Your task to perform on an android device: Go to display settings Image 0: 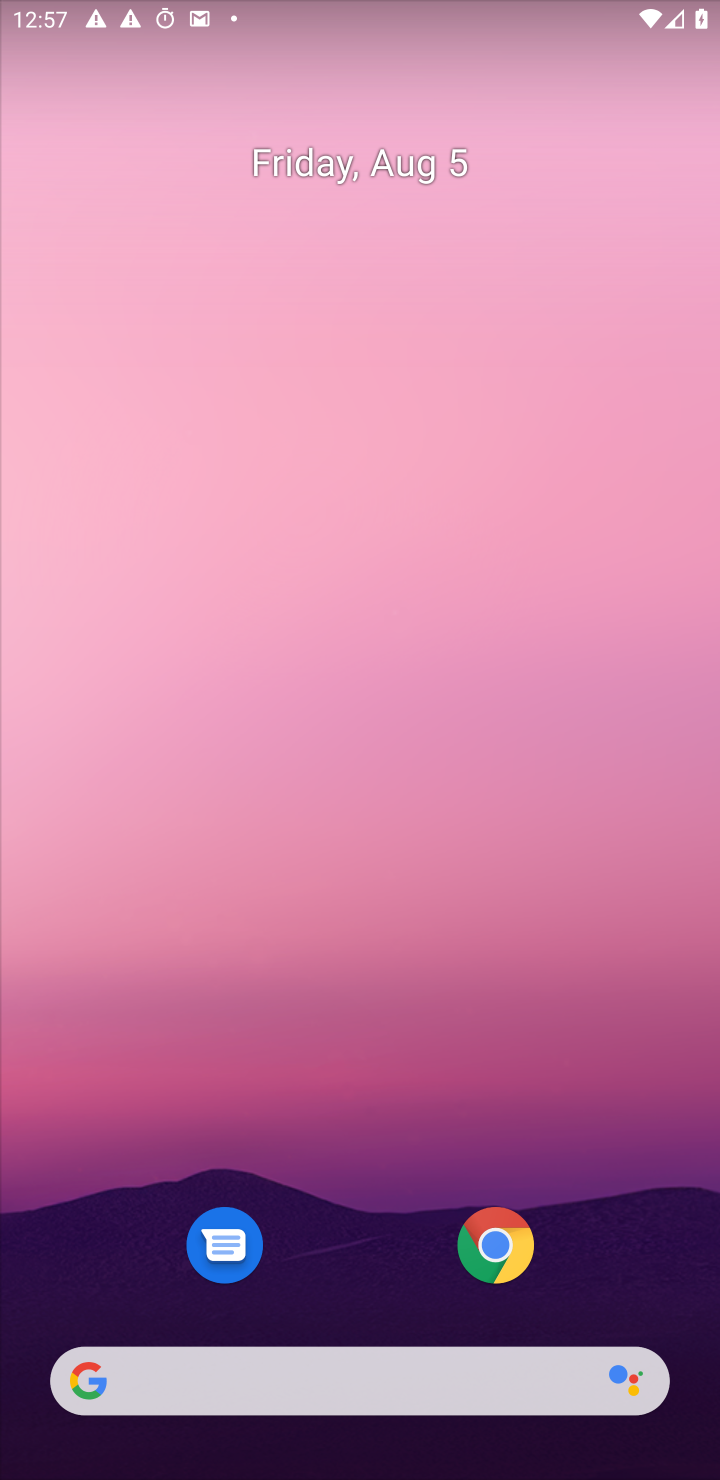
Step 0: drag from (454, 451) to (465, 50)
Your task to perform on an android device: Go to display settings Image 1: 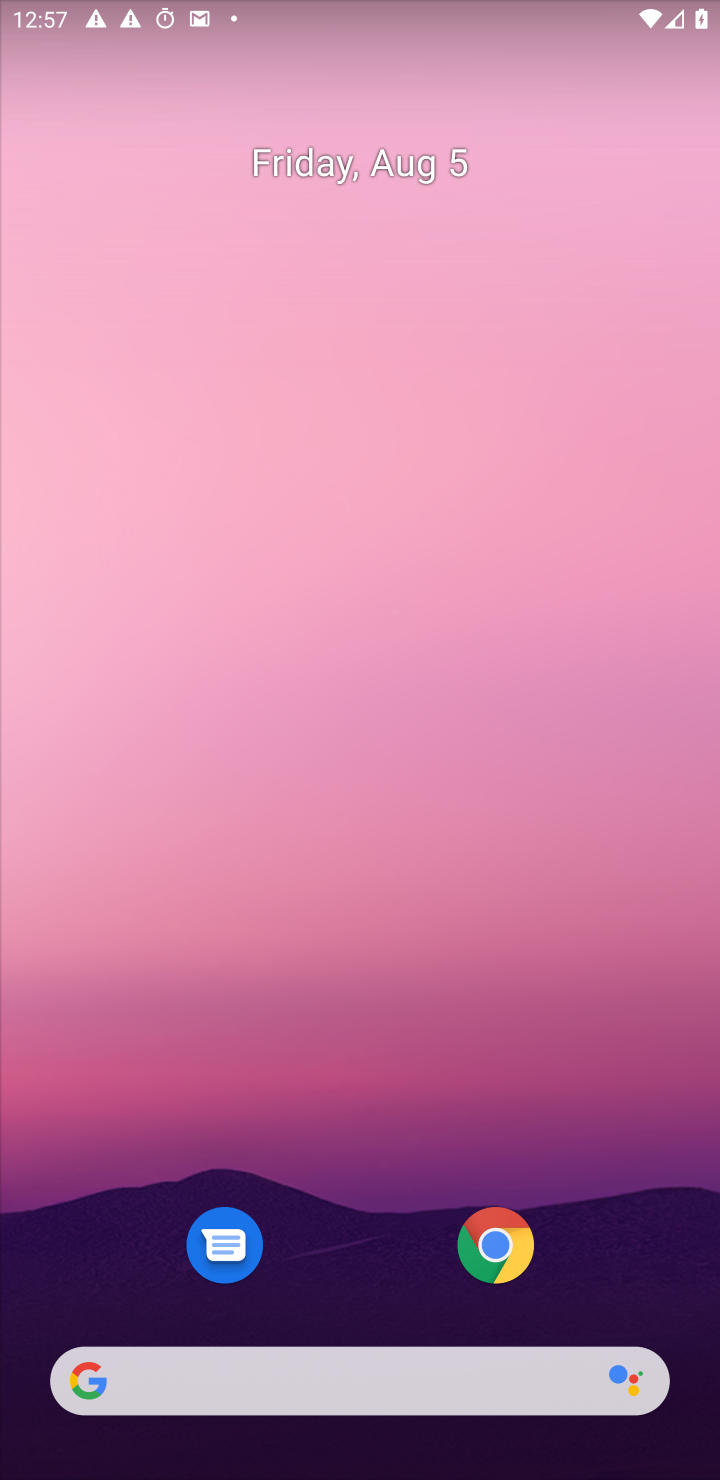
Step 1: drag from (417, 955) to (498, 59)
Your task to perform on an android device: Go to display settings Image 2: 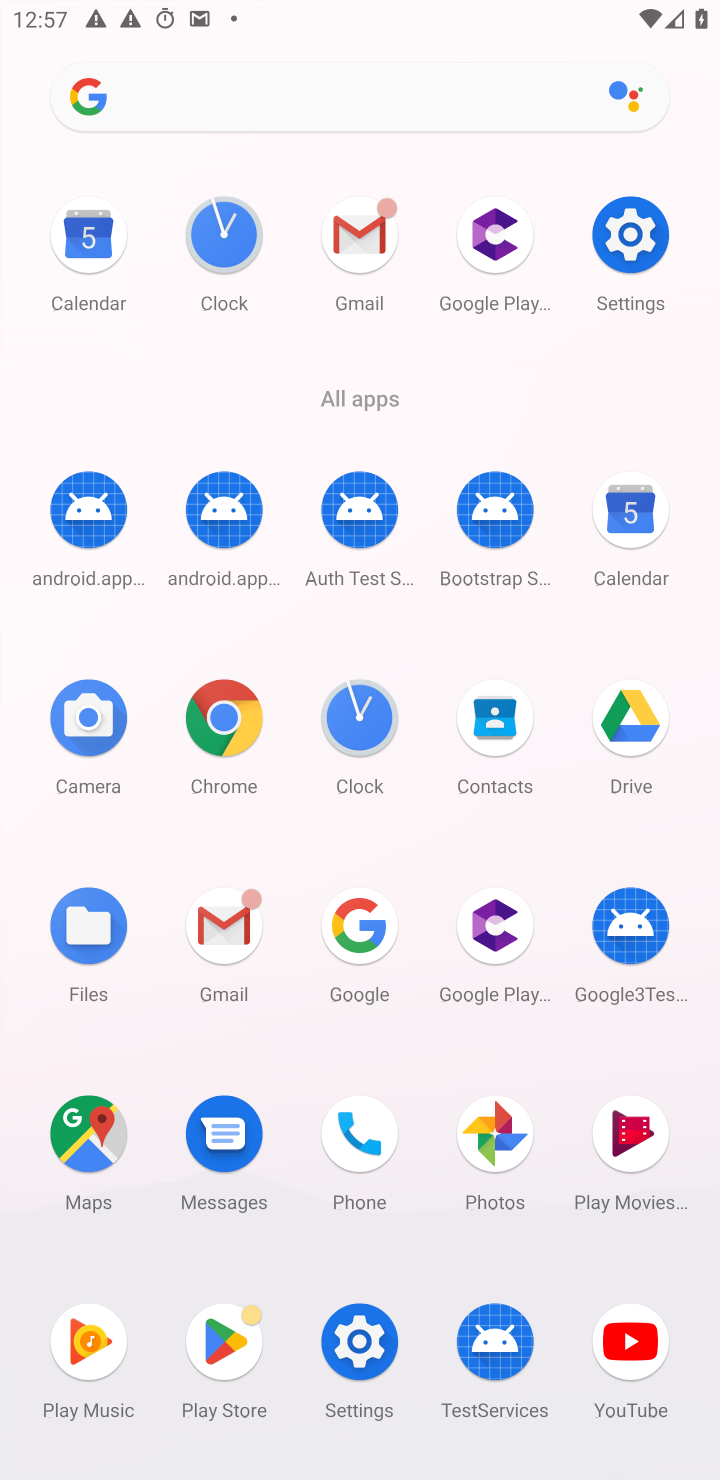
Step 2: click (631, 239)
Your task to perform on an android device: Go to display settings Image 3: 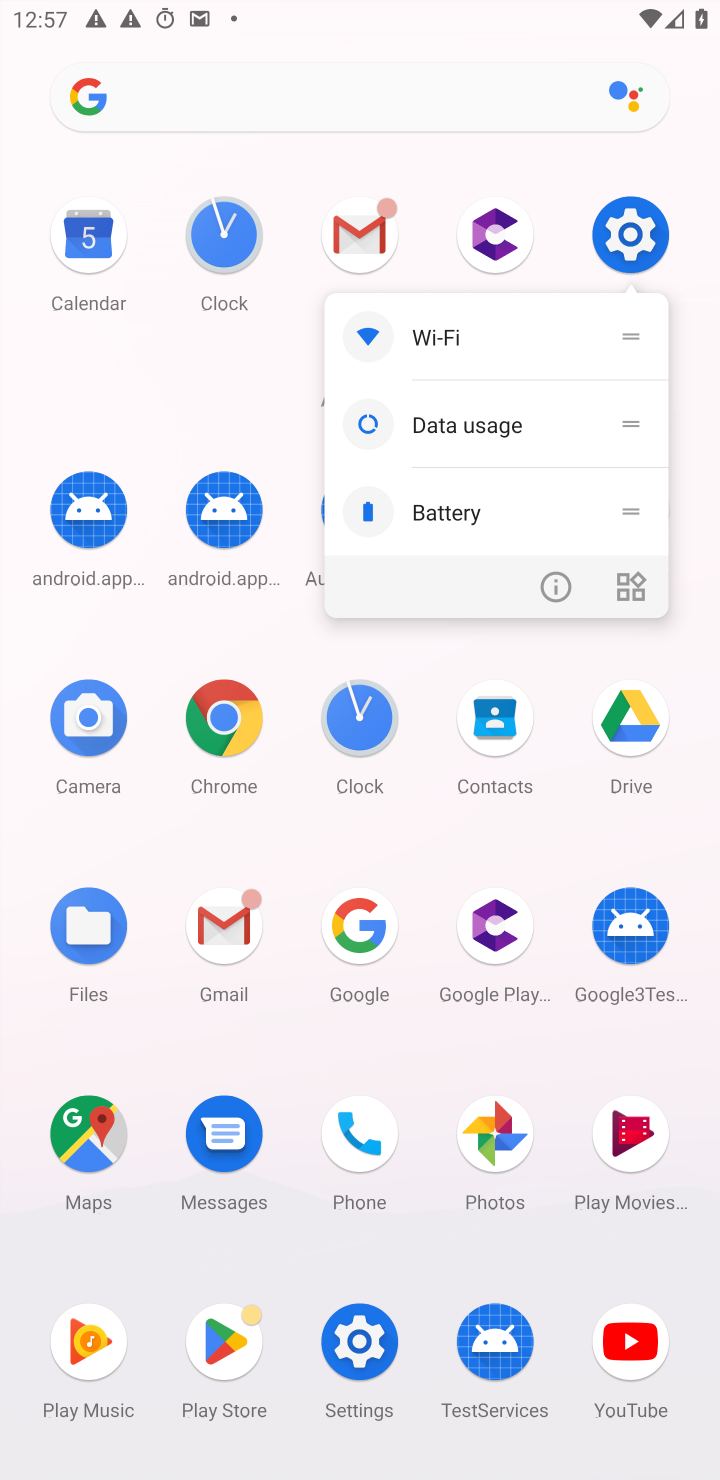
Step 3: click (620, 215)
Your task to perform on an android device: Go to display settings Image 4: 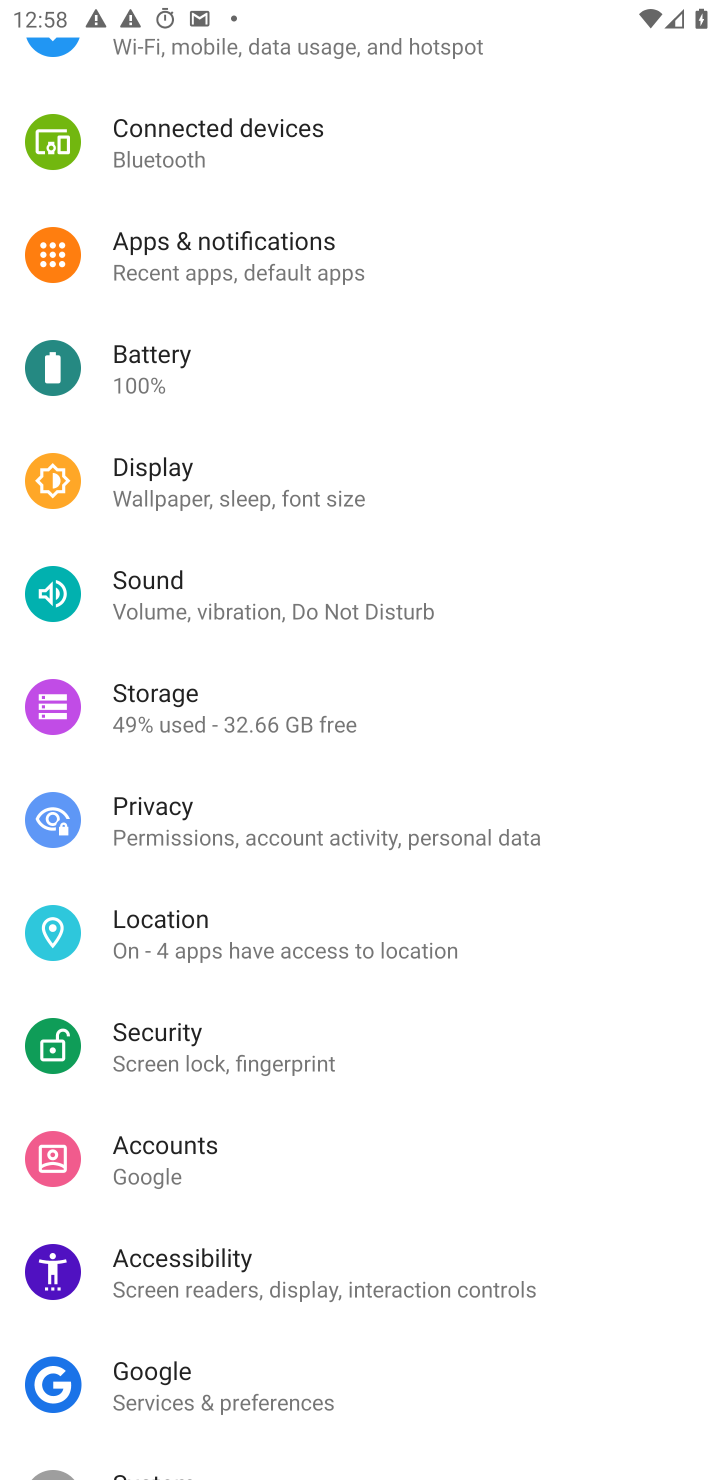
Step 4: click (184, 479)
Your task to perform on an android device: Go to display settings Image 5: 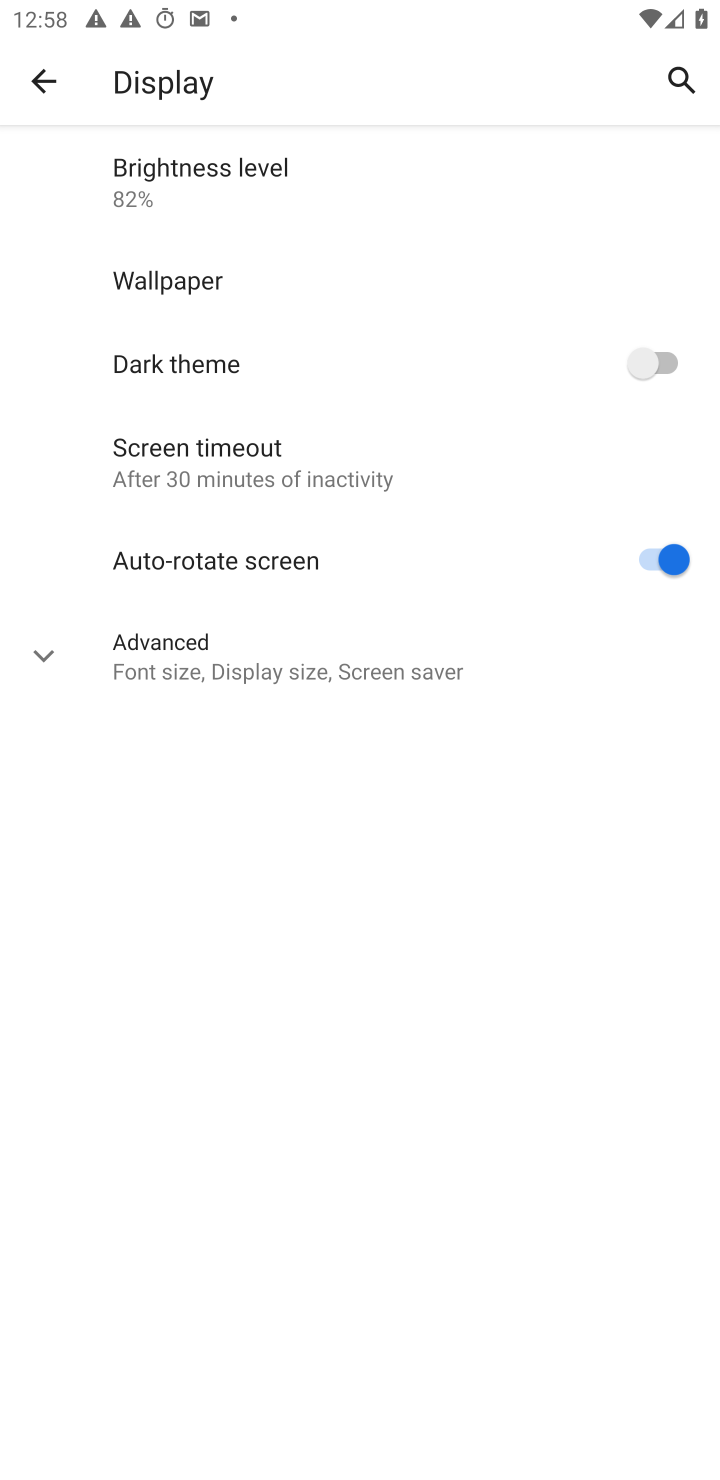
Step 5: task complete